Your task to perform on an android device: View the shopping cart on ebay. Image 0: 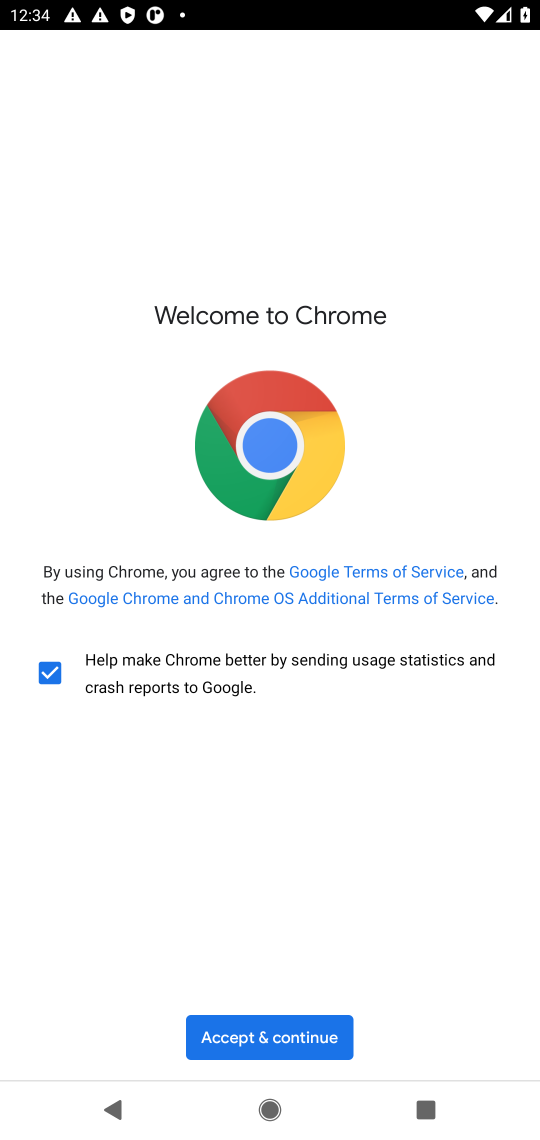
Step 0: click (284, 1034)
Your task to perform on an android device: View the shopping cart on ebay. Image 1: 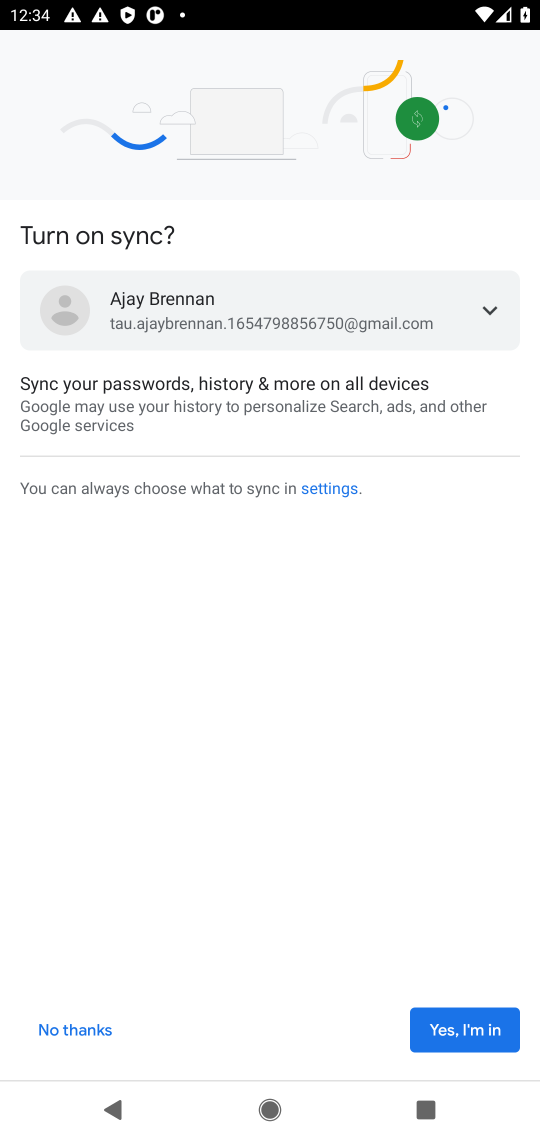
Step 1: click (463, 1021)
Your task to perform on an android device: View the shopping cart on ebay. Image 2: 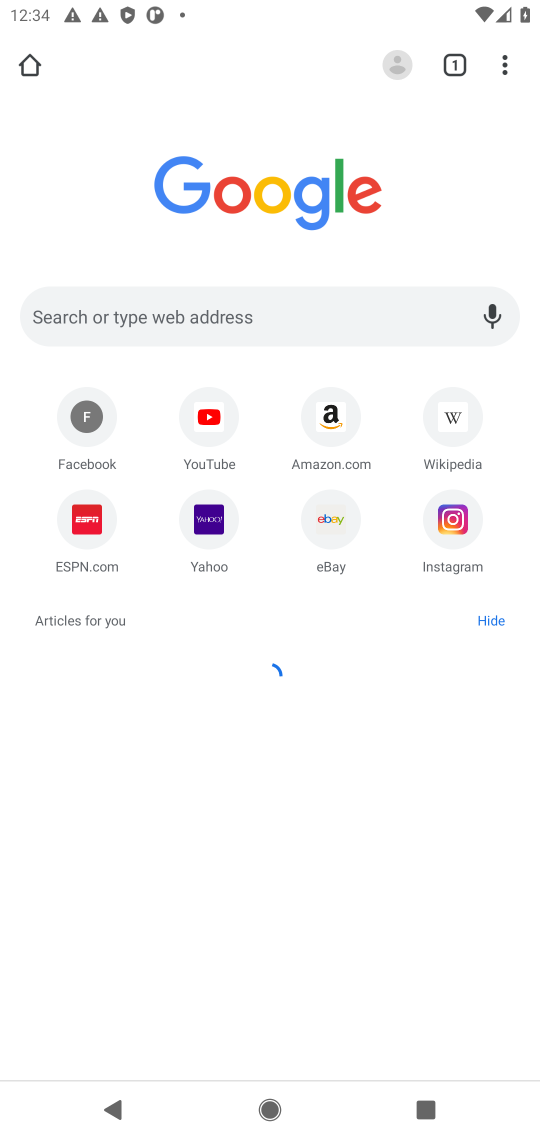
Step 2: click (378, 304)
Your task to perform on an android device: View the shopping cart on ebay. Image 3: 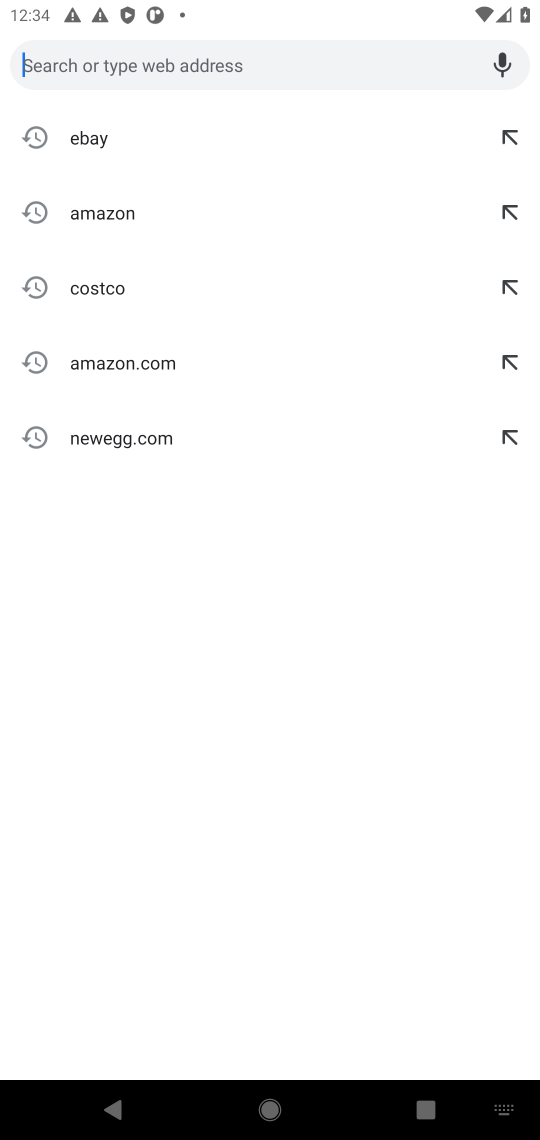
Step 3: click (93, 134)
Your task to perform on an android device: View the shopping cart on ebay. Image 4: 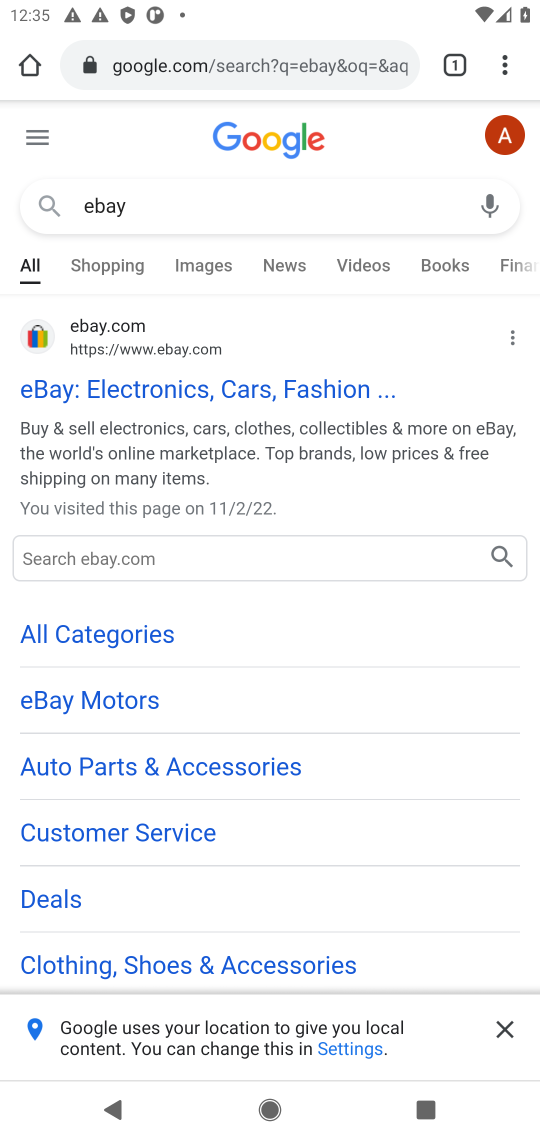
Step 4: click (152, 351)
Your task to perform on an android device: View the shopping cart on ebay. Image 5: 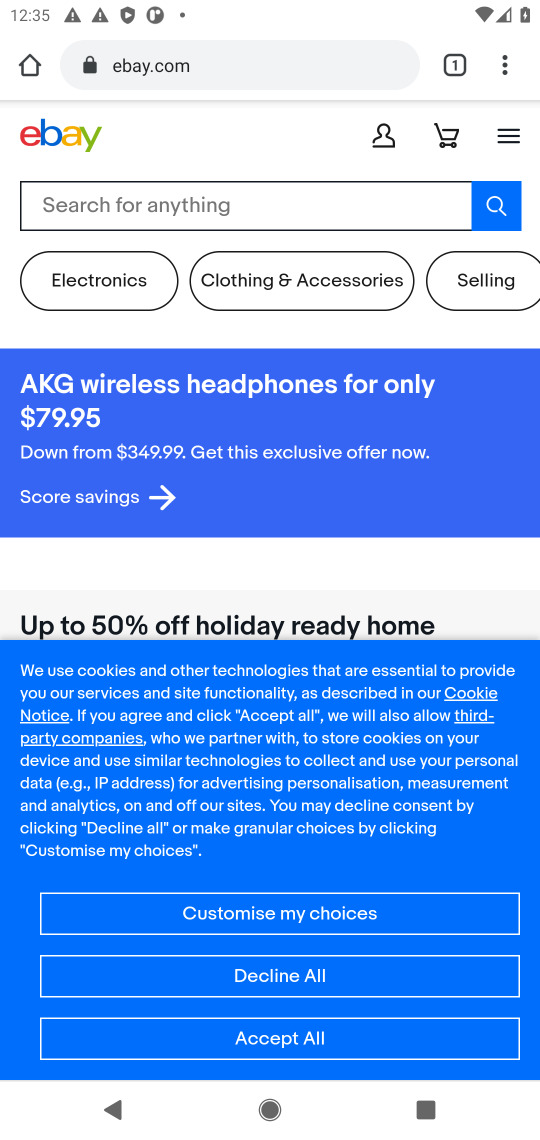
Step 5: task complete